Your task to perform on an android device: search for starred emails in the gmail app Image 0: 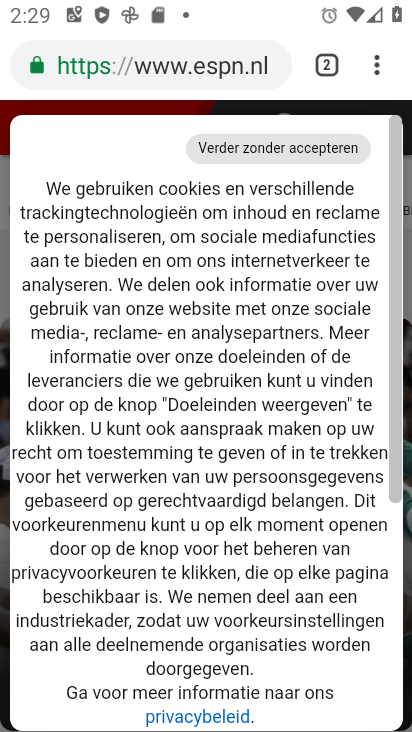
Step 0: press home button
Your task to perform on an android device: search for starred emails in the gmail app Image 1: 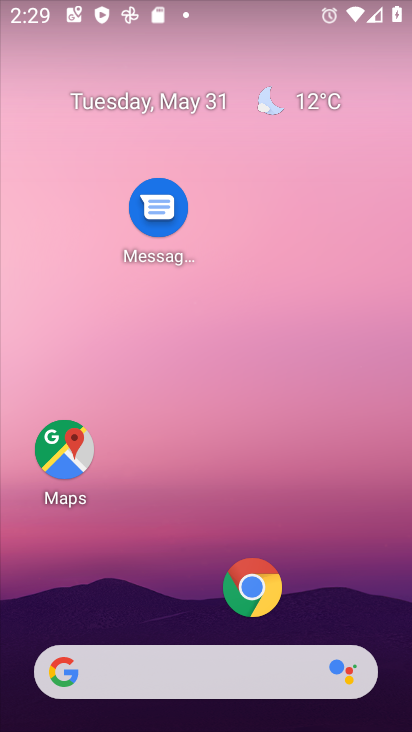
Step 1: drag from (177, 534) to (156, 21)
Your task to perform on an android device: search for starred emails in the gmail app Image 2: 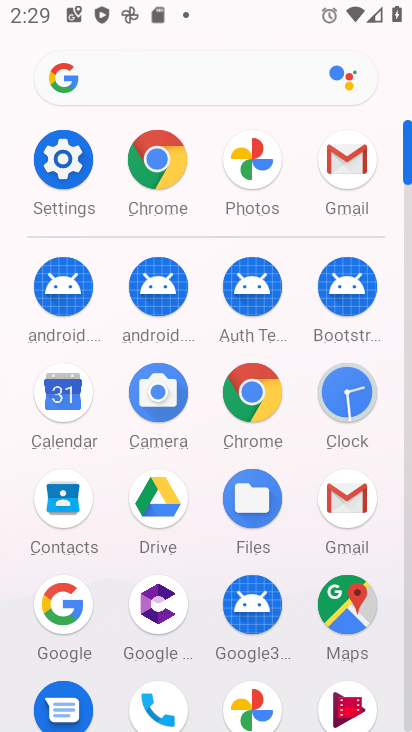
Step 2: click (333, 479)
Your task to perform on an android device: search for starred emails in the gmail app Image 3: 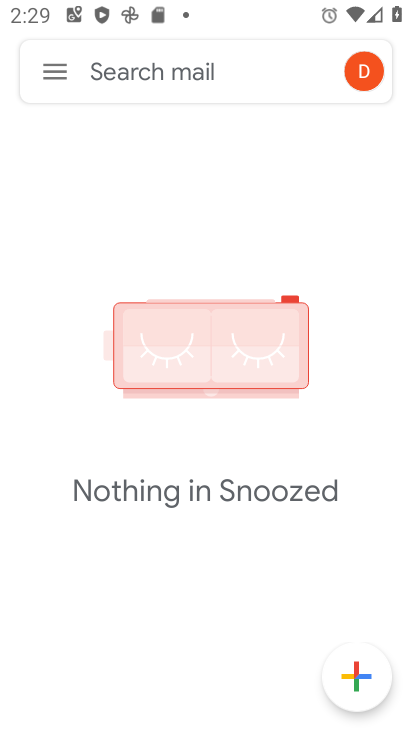
Step 3: task complete